Your task to perform on an android device: toggle notification dots Image 0: 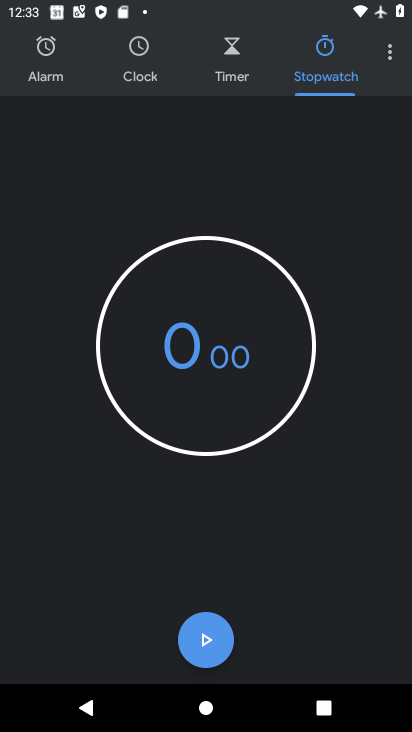
Step 0: press home button
Your task to perform on an android device: toggle notification dots Image 1: 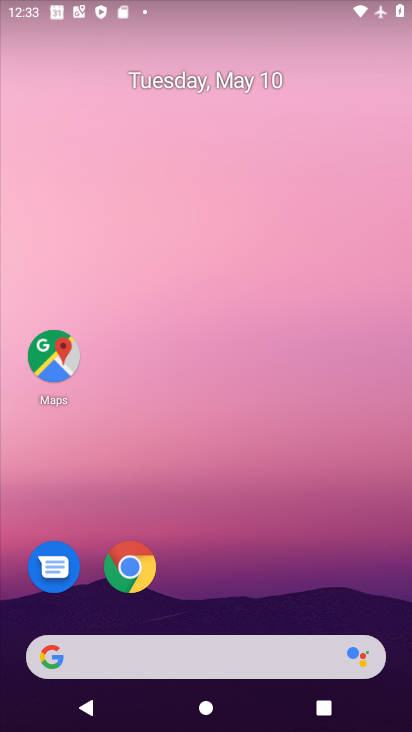
Step 1: drag from (391, 640) to (234, 53)
Your task to perform on an android device: toggle notification dots Image 2: 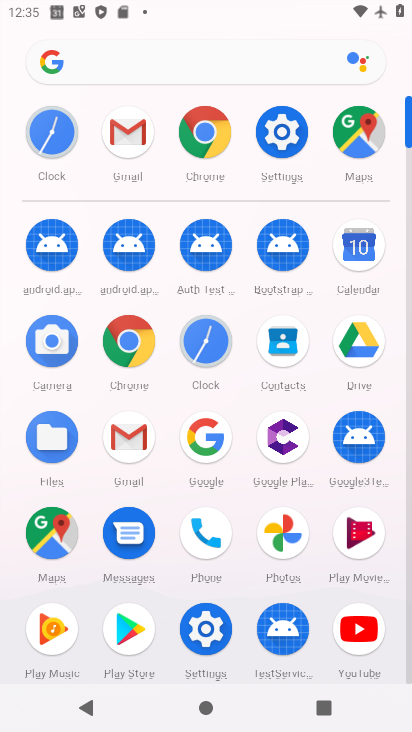
Step 2: click (201, 646)
Your task to perform on an android device: toggle notification dots Image 3: 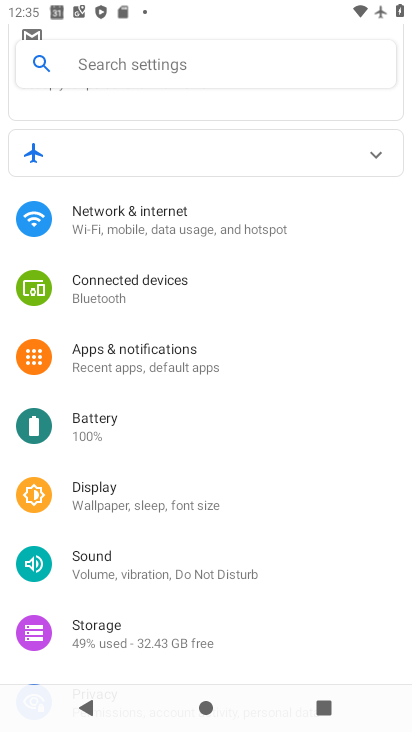
Step 3: click (166, 368)
Your task to perform on an android device: toggle notification dots Image 4: 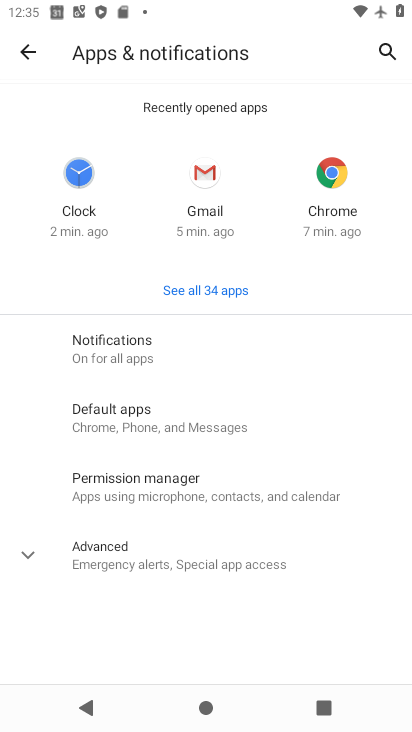
Step 4: click (166, 368)
Your task to perform on an android device: toggle notification dots Image 5: 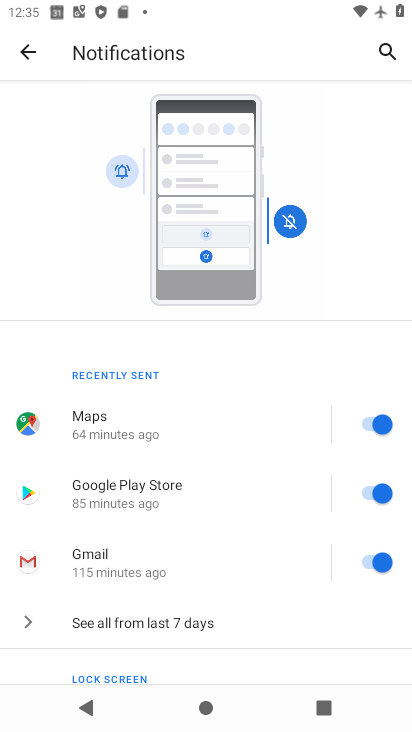
Step 5: drag from (172, 620) to (153, 149)
Your task to perform on an android device: toggle notification dots Image 6: 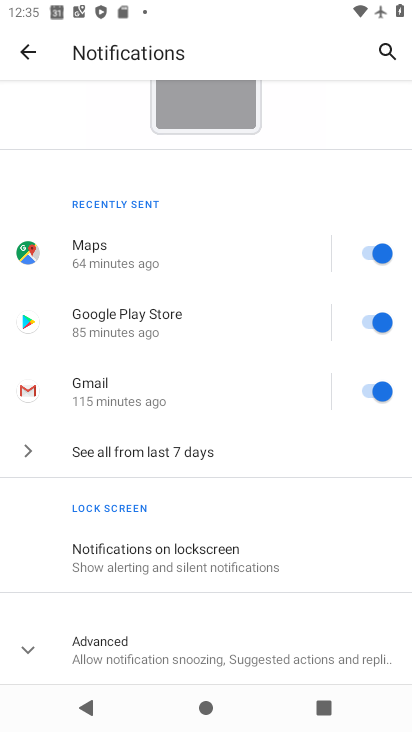
Step 6: click (152, 647)
Your task to perform on an android device: toggle notification dots Image 7: 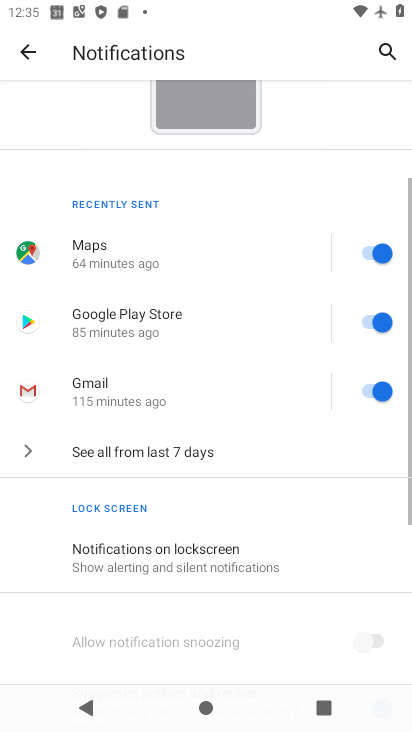
Step 7: drag from (152, 647) to (234, 158)
Your task to perform on an android device: toggle notification dots Image 8: 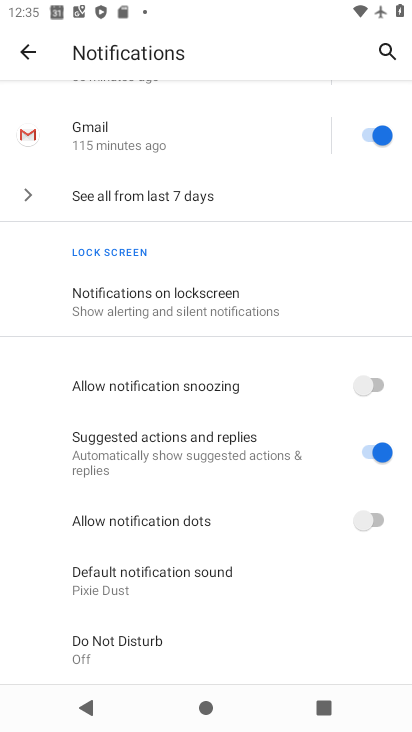
Step 8: click (283, 515)
Your task to perform on an android device: toggle notification dots Image 9: 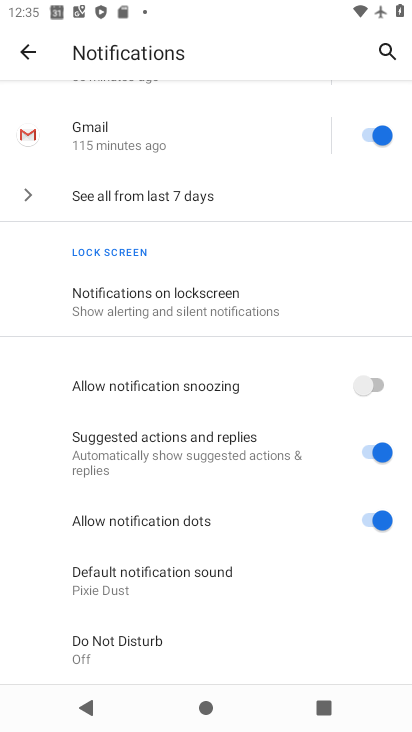
Step 9: task complete